Your task to perform on an android device: Go to ESPN.com Image 0: 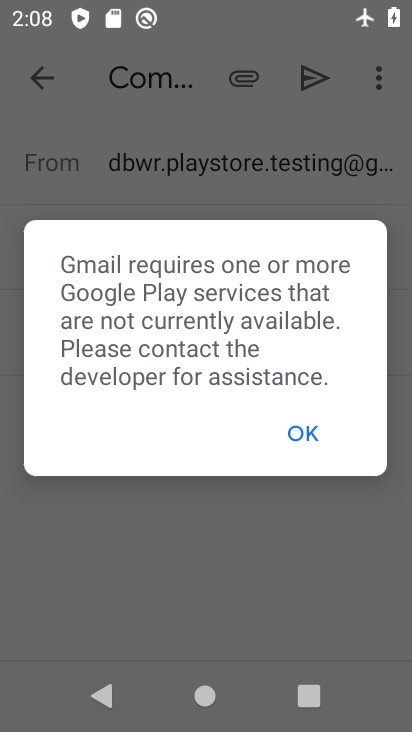
Step 0: click (300, 433)
Your task to perform on an android device: Go to ESPN.com Image 1: 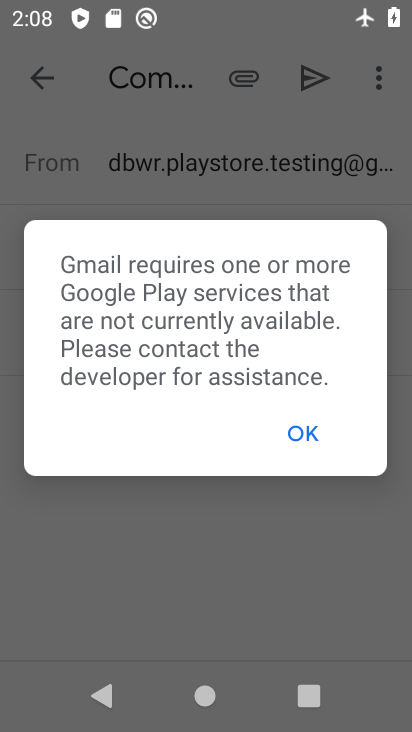
Step 1: click (300, 433)
Your task to perform on an android device: Go to ESPN.com Image 2: 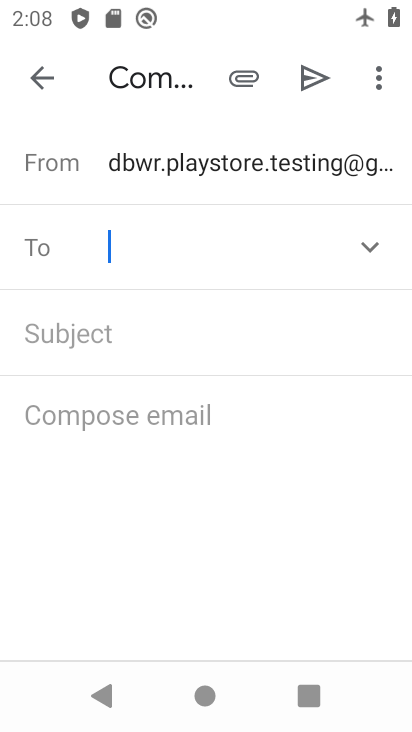
Step 2: click (300, 432)
Your task to perform on an android device: Go to ESPN.com Image 3: 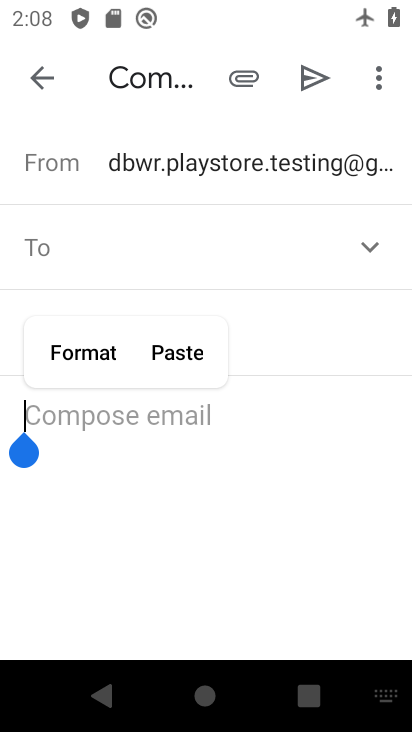
Step 3: click (34, 68)
Your task to perform on an android device: Go to ESPN.com Image 4: 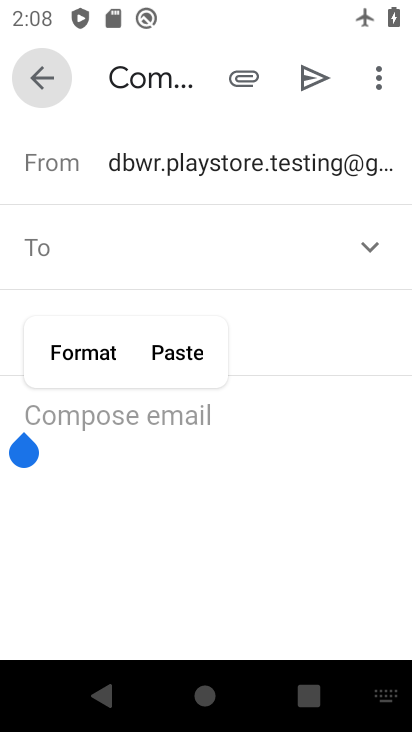
Step 4: click (41, 63)
Your task to perform on an android device: Go to ESPN.com Image 5: 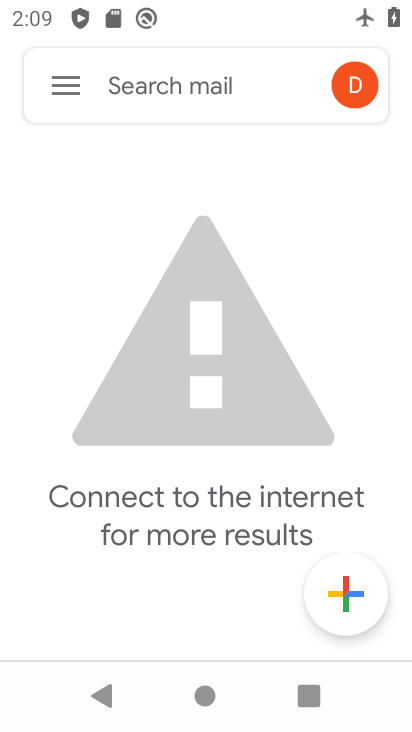
Step 5: click (70, 81)
Your task to perform on an android device: Go to ESPN.com Image 6: 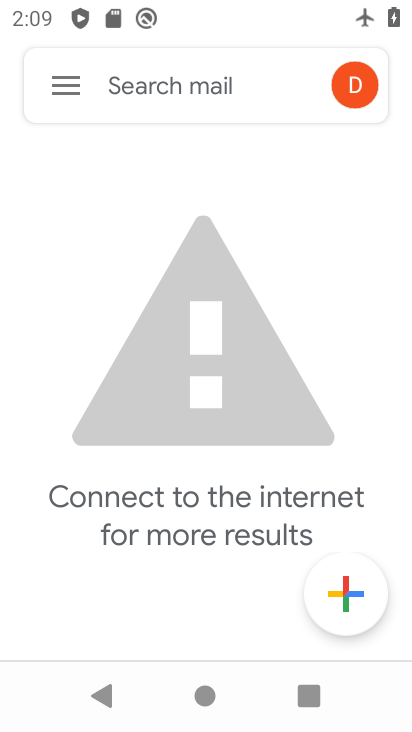
Step 6: press back button
Your task to perform on an android device: Go to ESPN.com Image 7: 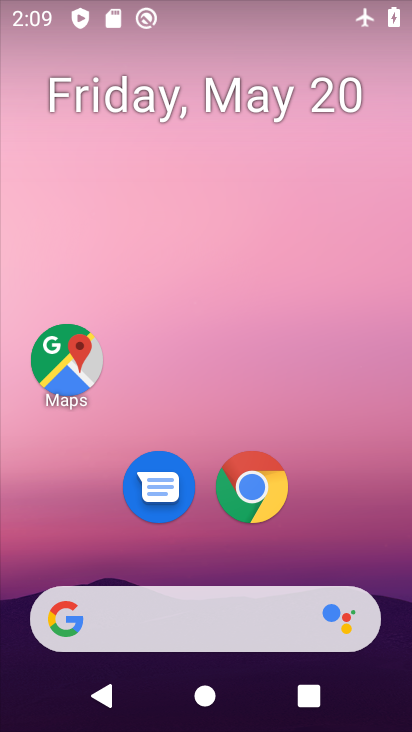
Step 7: drag from (287, 702) to (263, 118)
Your task to perform on an android device: Go to ESPN.com Image 8: 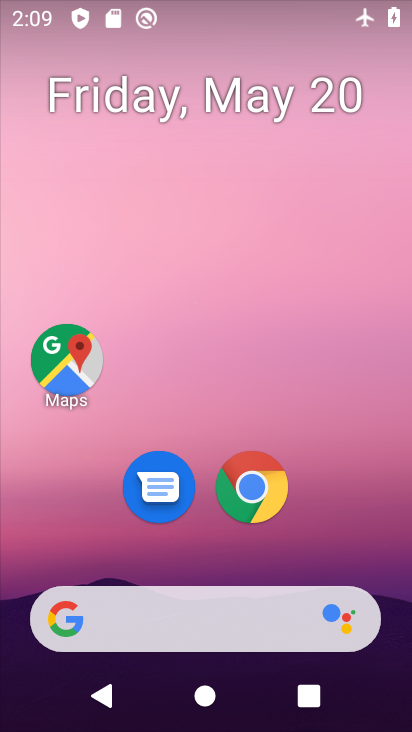
Step 8: drag from (266, 689) to (198, 112)
Your task to perform on an android device: Go to ESPN.com Image 9: 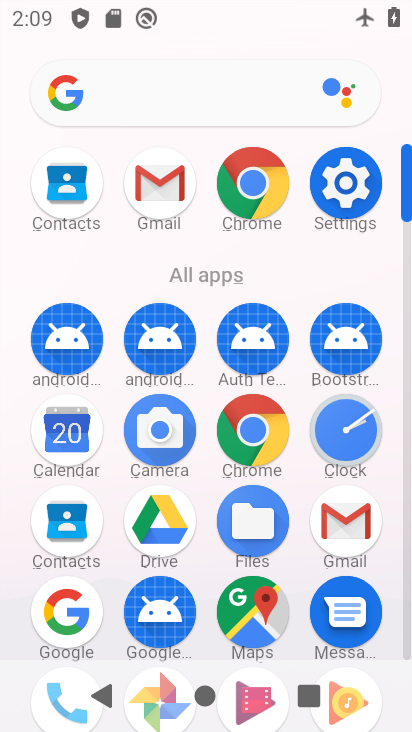
Step 9: click (254, 197)
Your task to perform on an android device: Go to ESPN.com Image 10: 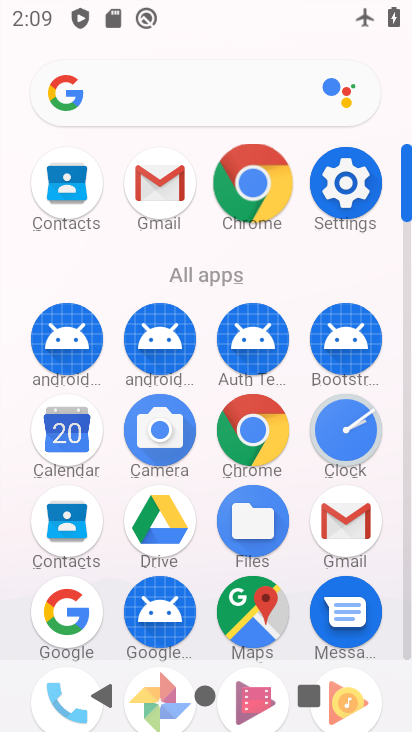
Step 10: click (254, 197)
Your task to perform on an android device: Go to ESPN.com Image 11: 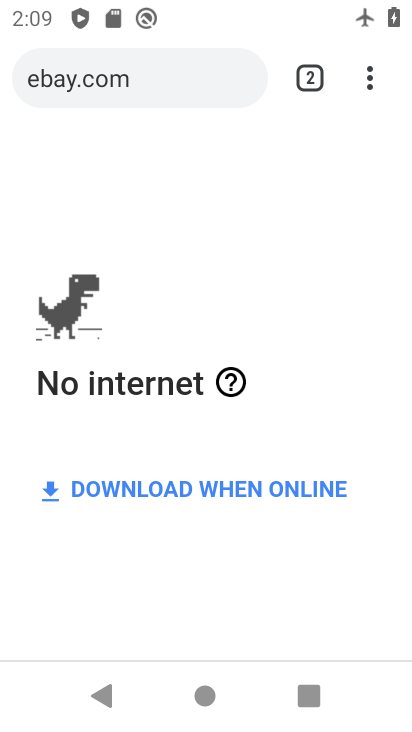
Step 11: click (363, 68)
Your task to perform on an android device: Go to ESPN.com Image 12: 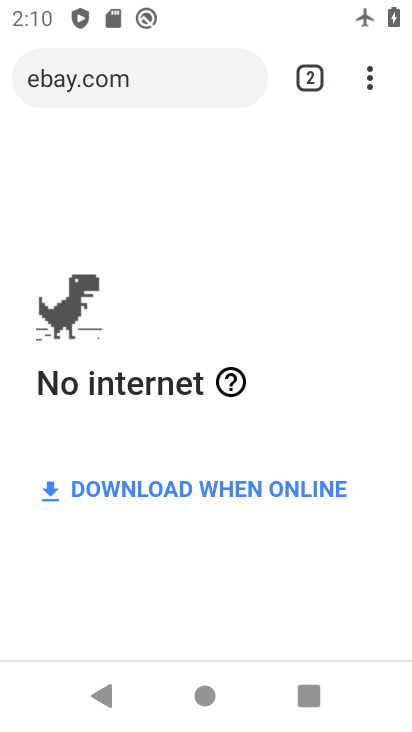
Step 12: press back button
Your task to perform on an android device: Go to ESPN.com Image 13: 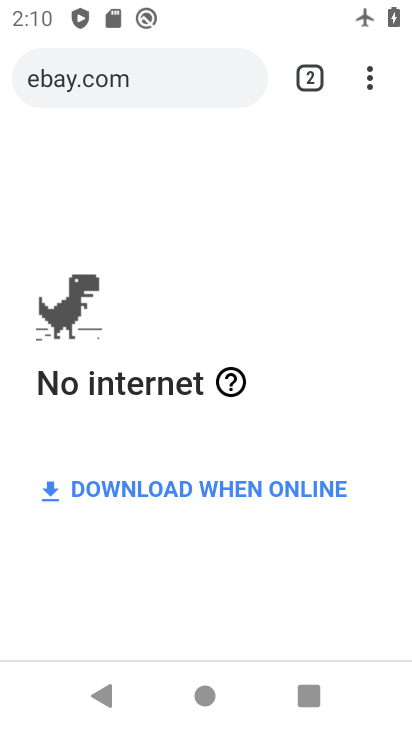
Step 13: press back button
Your task to perform on an android device: Go to ESPN.com Image 14: 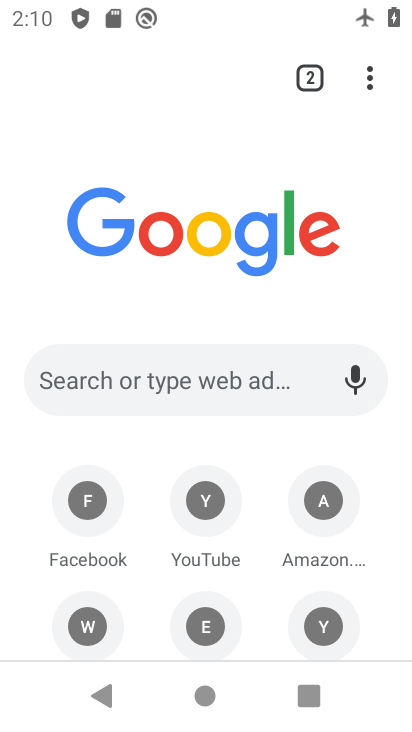
Step 14: press back button
Your task to perform on an android device: Go to ESPN.com Image 15: 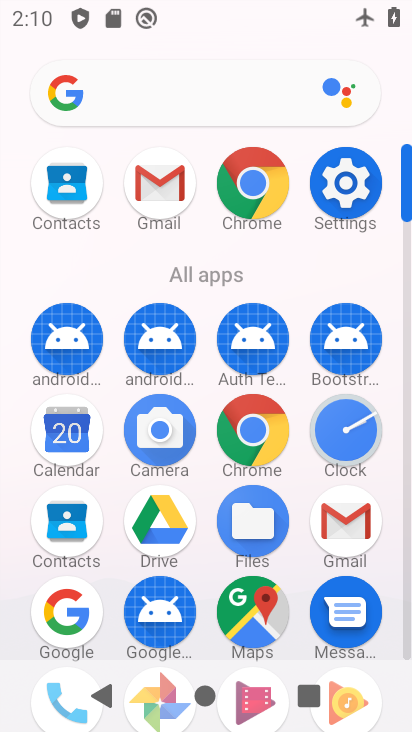
Step 15: press back button
Your task to perform on an android device: Go to ESPN.com Image 16: 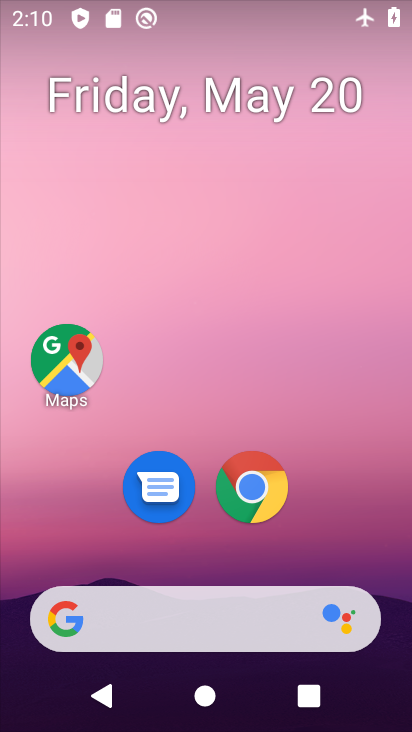
Step 16: drag from (291, 617) to (190, 44)
Your task to perform on an android device: Go to ESPN.com Image 17: 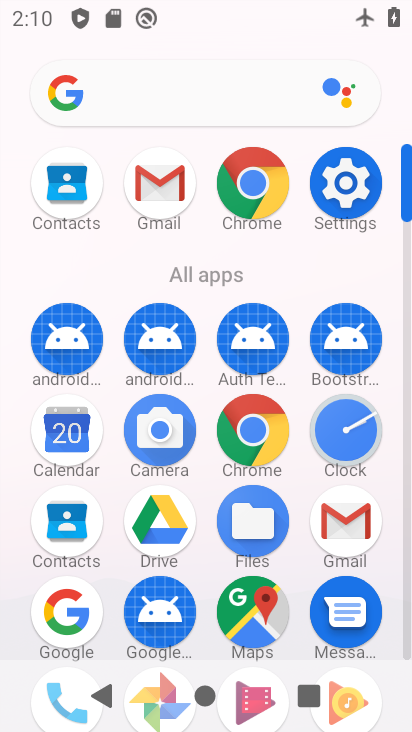
Step 17: click (253, 177)
Your task to perform on an android device: Go to ESPN.com Image 18: 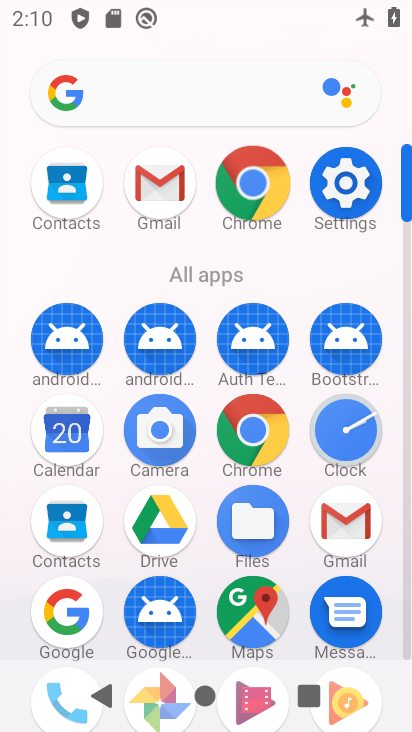
Step 18: click (255, 179)
Your task to perform on an android device: Go to ESPN.com Image 19: 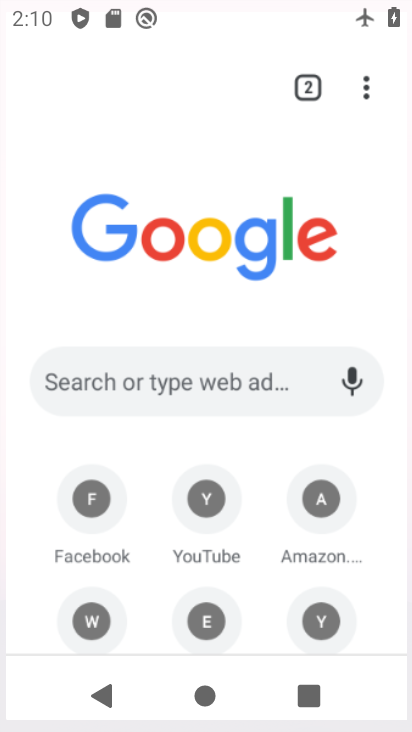
Step 19: click (255, 179)
Your task to perform on an android device: Go to ESPN.com Image 20: 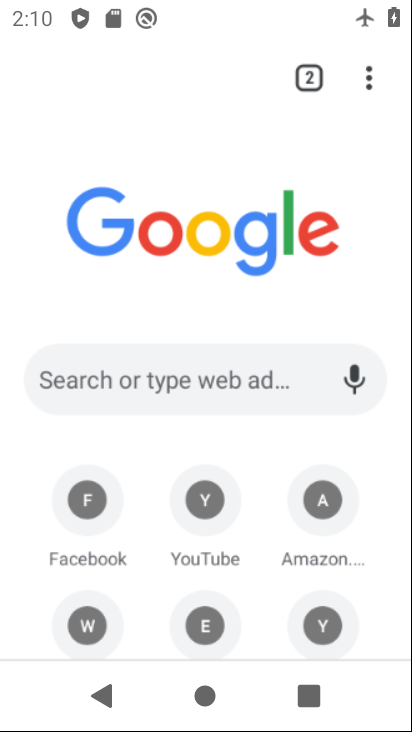
Step 20: click (256, 180)
Your task to perform on an android device: Go to ESPN.com Image 21: 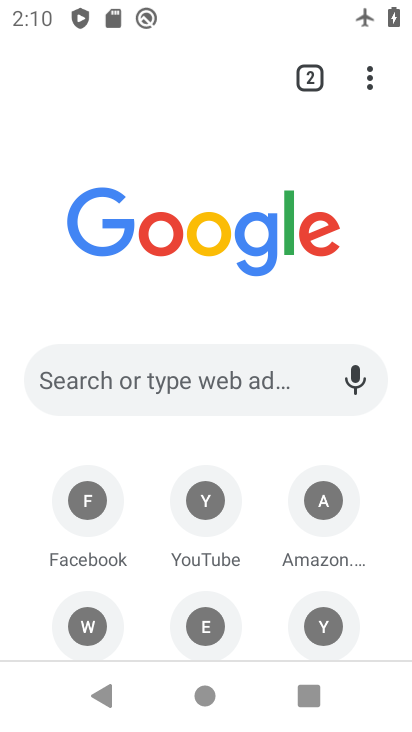
Step 21: drag from (262, 557) to (163, 86)
Your task to perform on an android device: Go to ESPN.com Image 22: 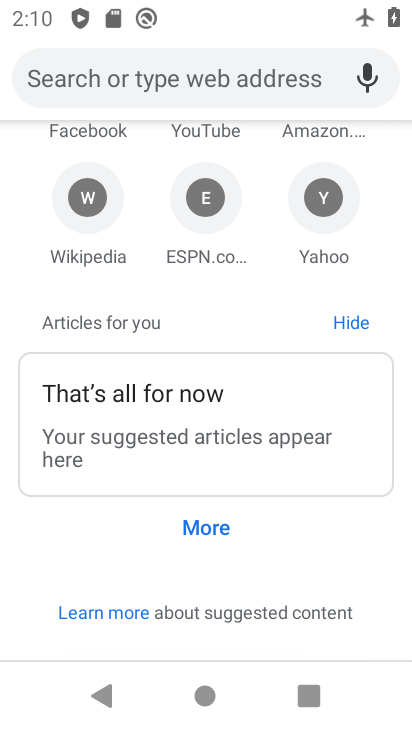
Step 22: drag from (246, 423) to (184, 94)
Your task to perform on an android device: Go to ESPN.com Image 23: 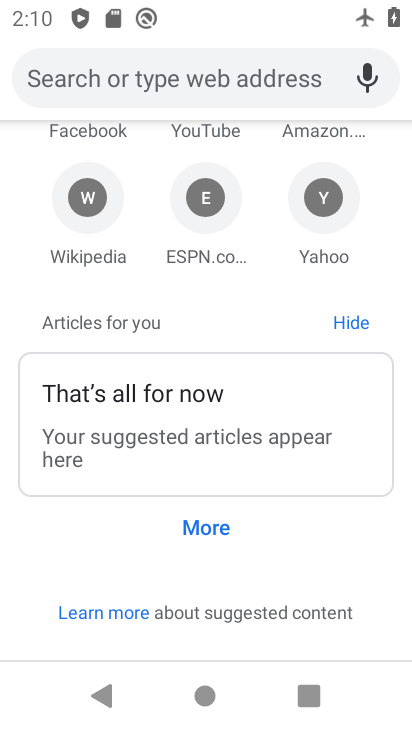
Step 23: drag from (239, 447) to (137, 40)
Your task to perform on an android device: Go to ESPN.com Image 24: 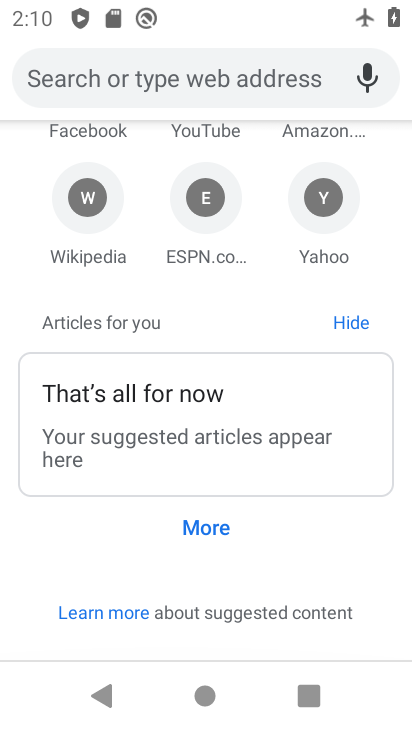
Step 24: drag from (185, 440) to (88, 65)
Your task to perform on an android device: Go to ESPN.com Image 25: 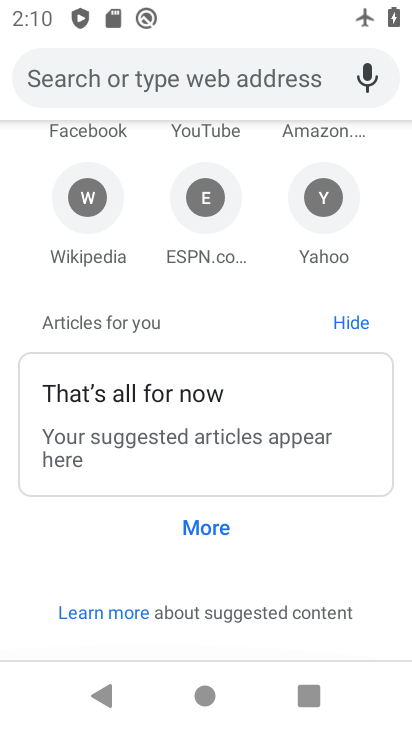
Step 25: drag from (208, 442) to (176, 149)
Your task to perform on an android device: Go to ESPN.com Image 26: 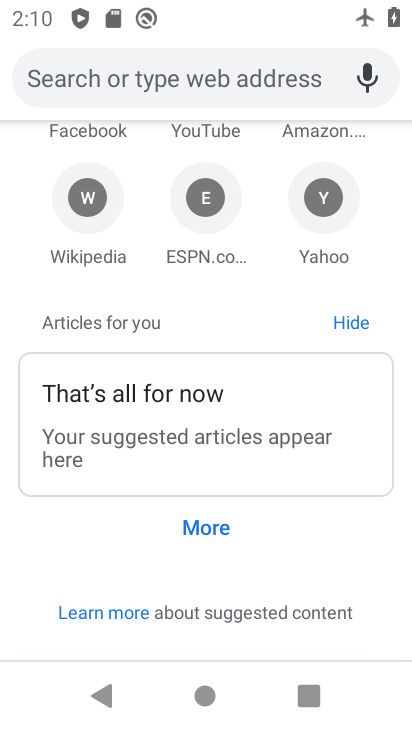
Step 26: drag from (270, 417) to (232, 122)
Your task to perform on an android device: Go to ESPN.com Image 27: 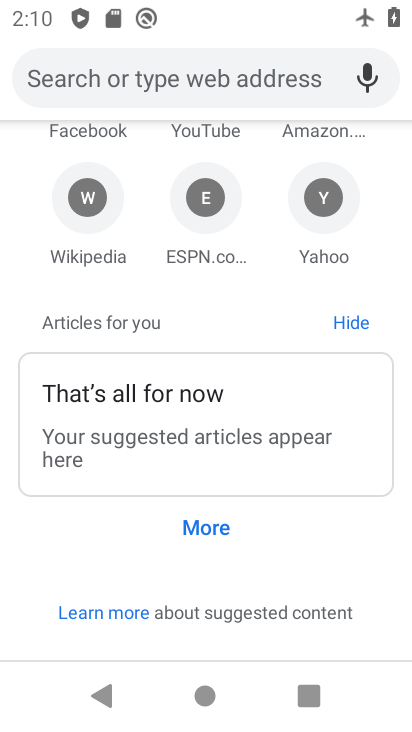
Step 27: drag from (279, 510) to (254, 146)
Your task to perform on an android device: Go to ESPN.com Image 28: 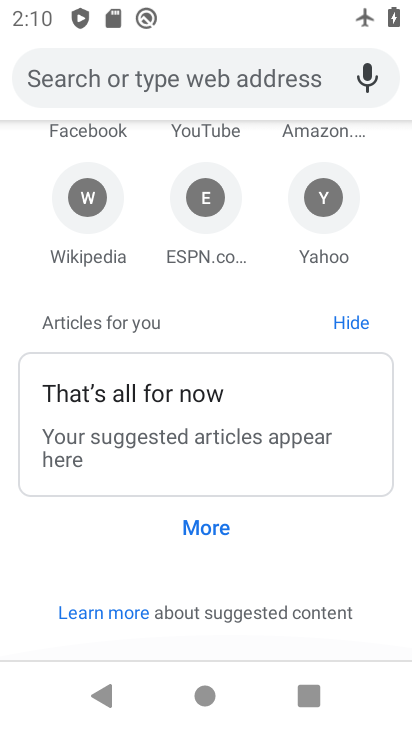
Step 28: drag from (212, 266) to (261, 415)
Your task to perform on an android device: Go to ESPN.com Image 29: 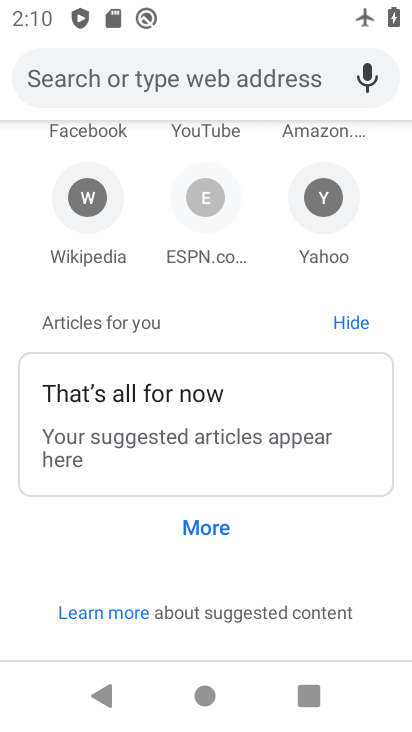
Step 29: drag from (206, 273) to (222, 372)
Your task to perform on an android device: Go to ESPN.com Image 30: 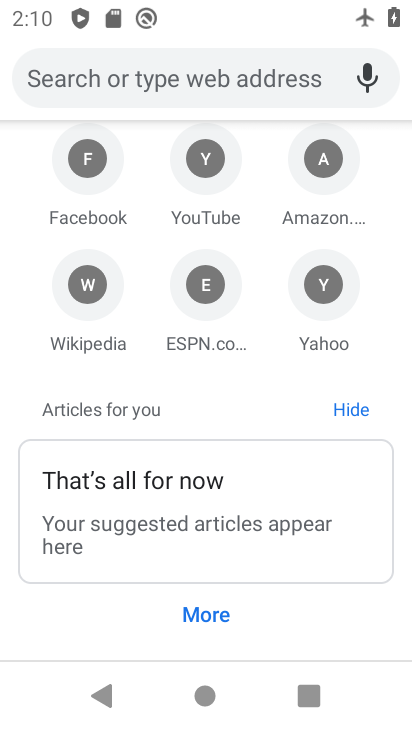
Step 30: click (192, 289)
Your task to perform on an android device: Go to ESPN.com Image 31: 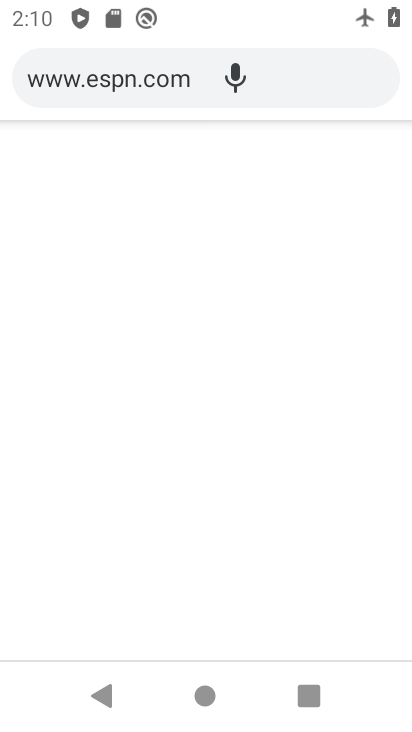
Step 31: click (206, 285)
Your task to perform on an android device: Go to ESPN.com Image 32: 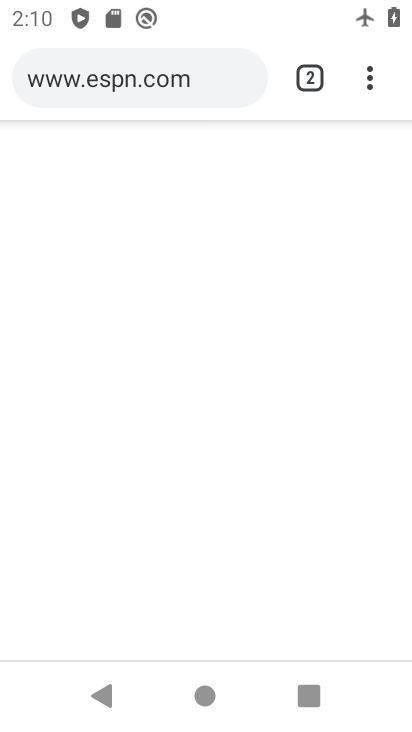
Step 32: click (205, 284)
Your task to perform on an android device: Go to ESPN.com Image 33: 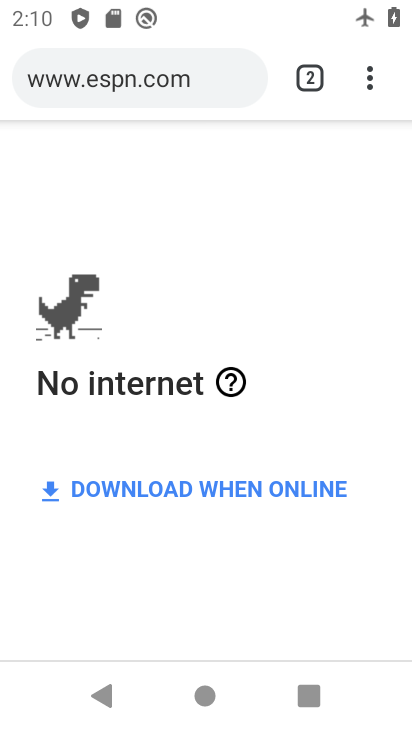
Step 33: click (205, 284)
Your task to perform on an android device: Go to ESPN.com Image 34: 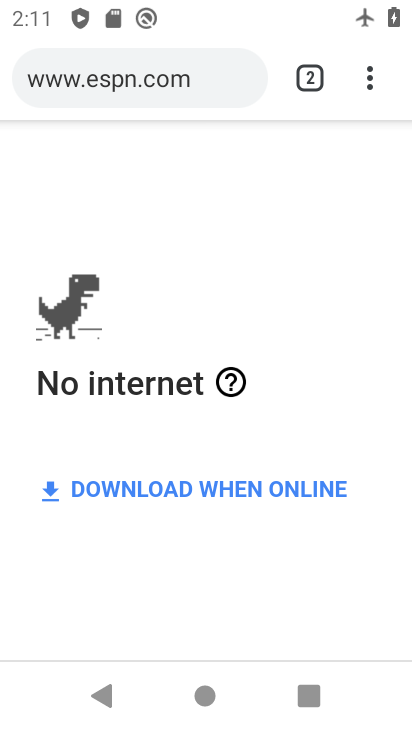
Step 34: click (178, 76)
Your task to perform on an android device: Go to ESPN.com Image 35: 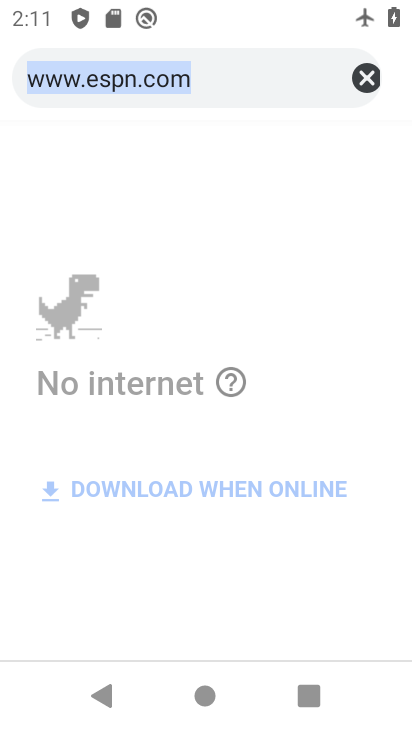
Step 35: click (184, 81)
Your task to perform on an android device: Go to ESPN.com Image 36: 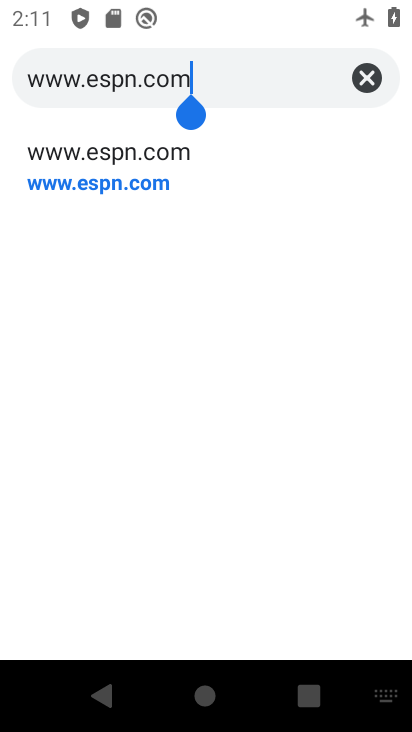
Step 36: click (147, 167)
Your task to perform on an android device: Go to ESPN.com Image 37: 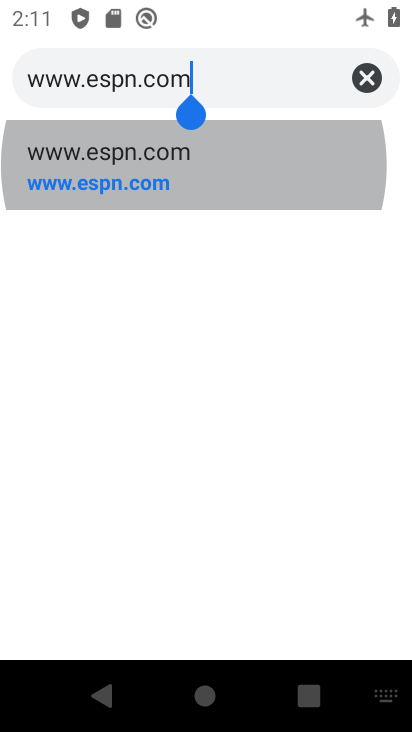
Step 37: click (143, 171)
Your task to perform on an android device: Go to ESPN.com Image 38: 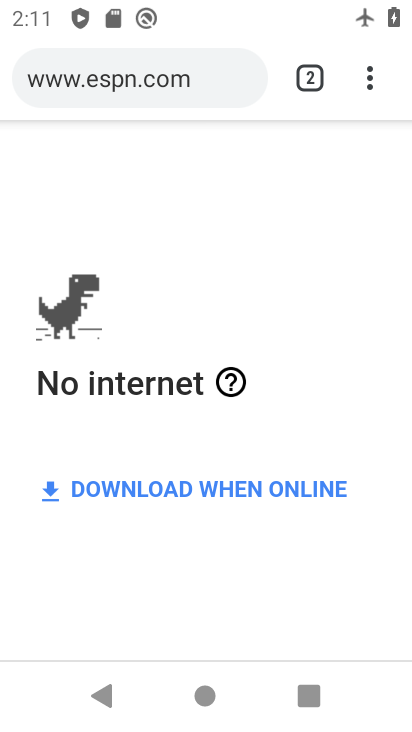
Step 38: click (112, 182)
Your task to perform on an android device: Go to ESPN.com Image 39: 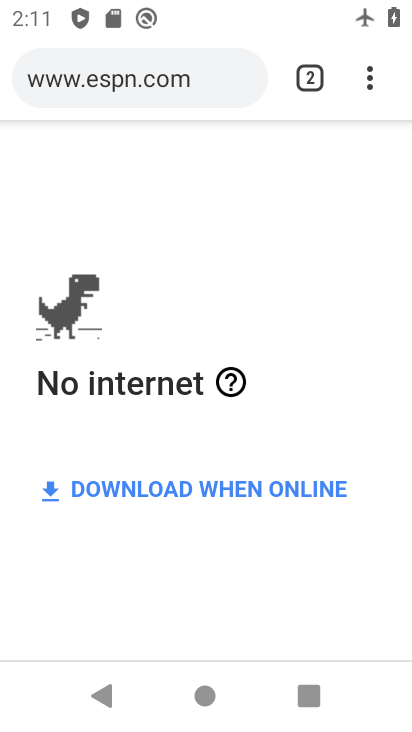
Step 39: click (112, 182)
Your task to perform on an android device: Go to ESPN.com Image 40: 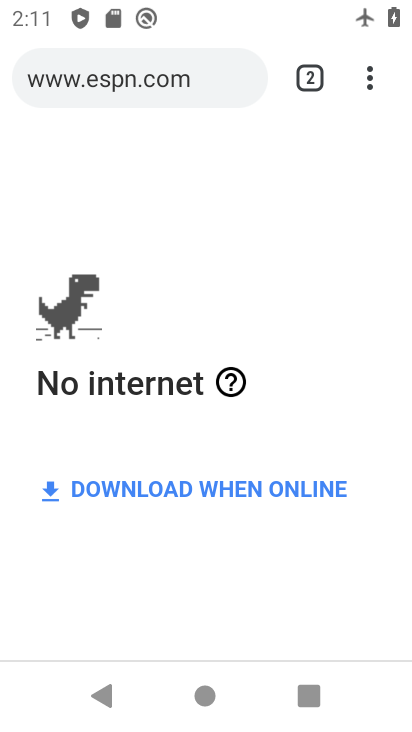
Step 40: task complete